Your task to perform on an android device: visit the assistant section in the google photos Image 0: 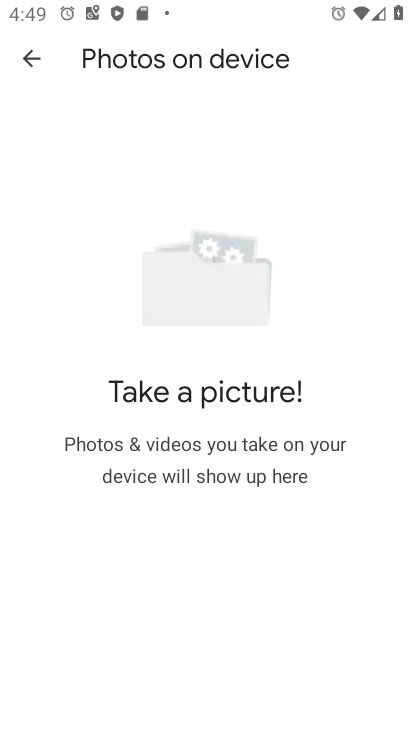
Step 0: press home button
Your task to perform on an android device: visit the assistant section in the google photos Image 1: 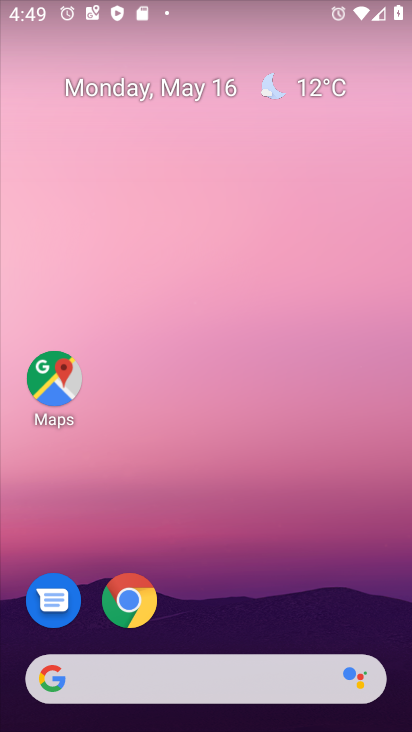
Step 1: drag from (186, 653) to (198, 361)
Your task to perform on an android device: visit the assistant section in the google photos Image 2: 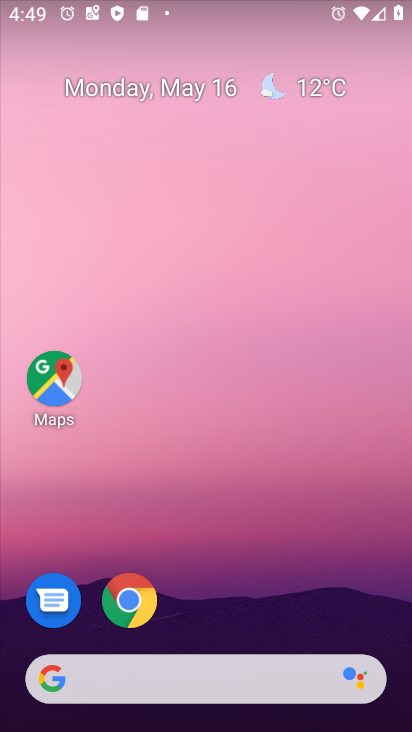
Step 2: drag from (212, 664) to (205, 273)
Your task to perform on an android device: visit the assistant section in the google photos Image 3: 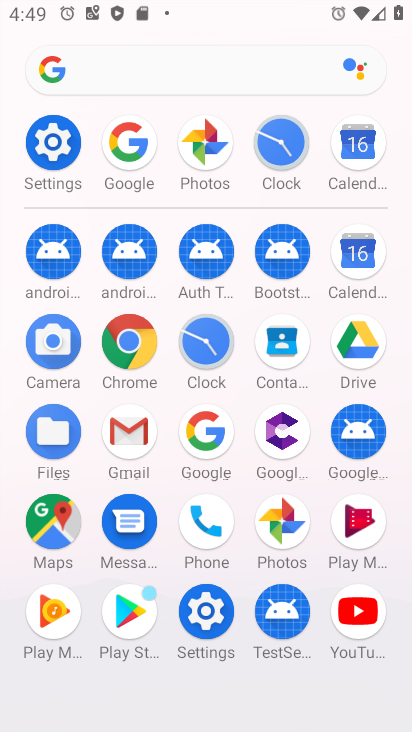
Step 3: click (305, 514)
Your task to perform on an android device: visit the assistant section in the google photos Image 4: 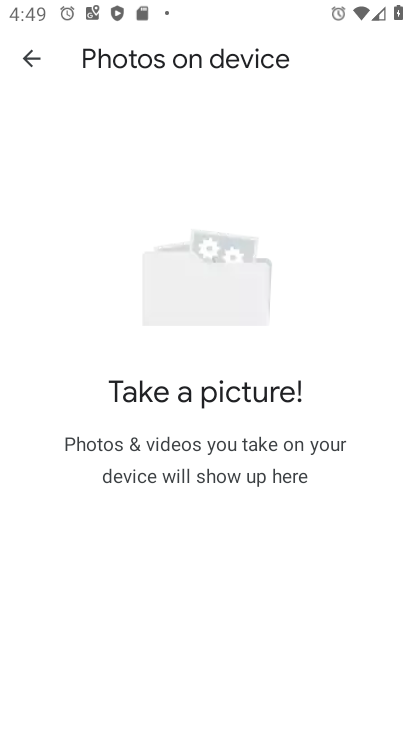
Step 4: click (34, 64)
Your task to perform on an android device: visit the assistant section in the google photos Image 5: 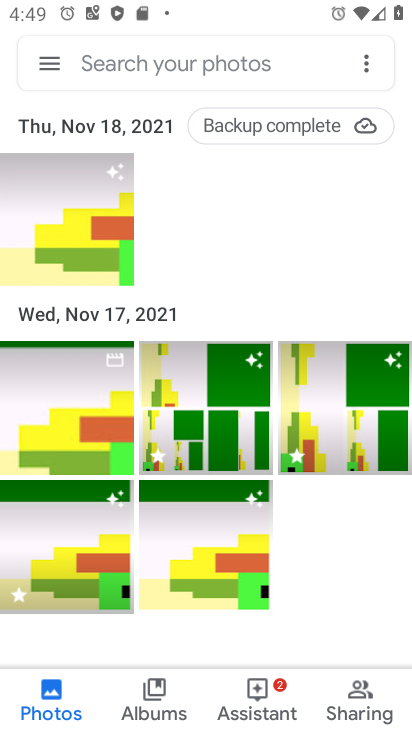
Step 5: click (253, 701)
Your task to perform on an android device: visit the assistant section in the google photos Image 6: 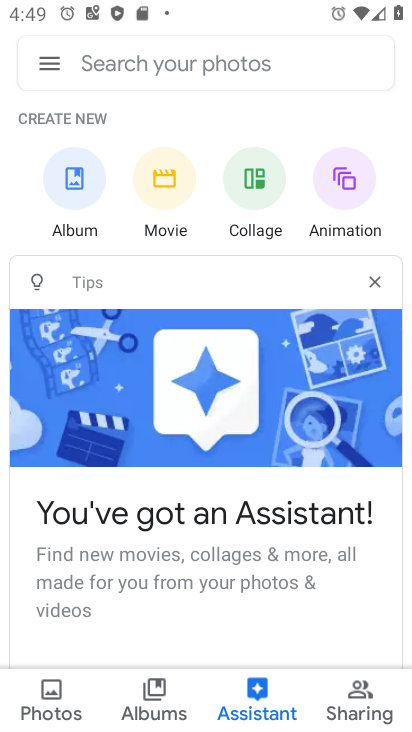
Step 6: task complete